Your task to perform on an android device: Search for duracell triple a on amazon, select the first entry, add it to the cart, then select checkout. Image 0: 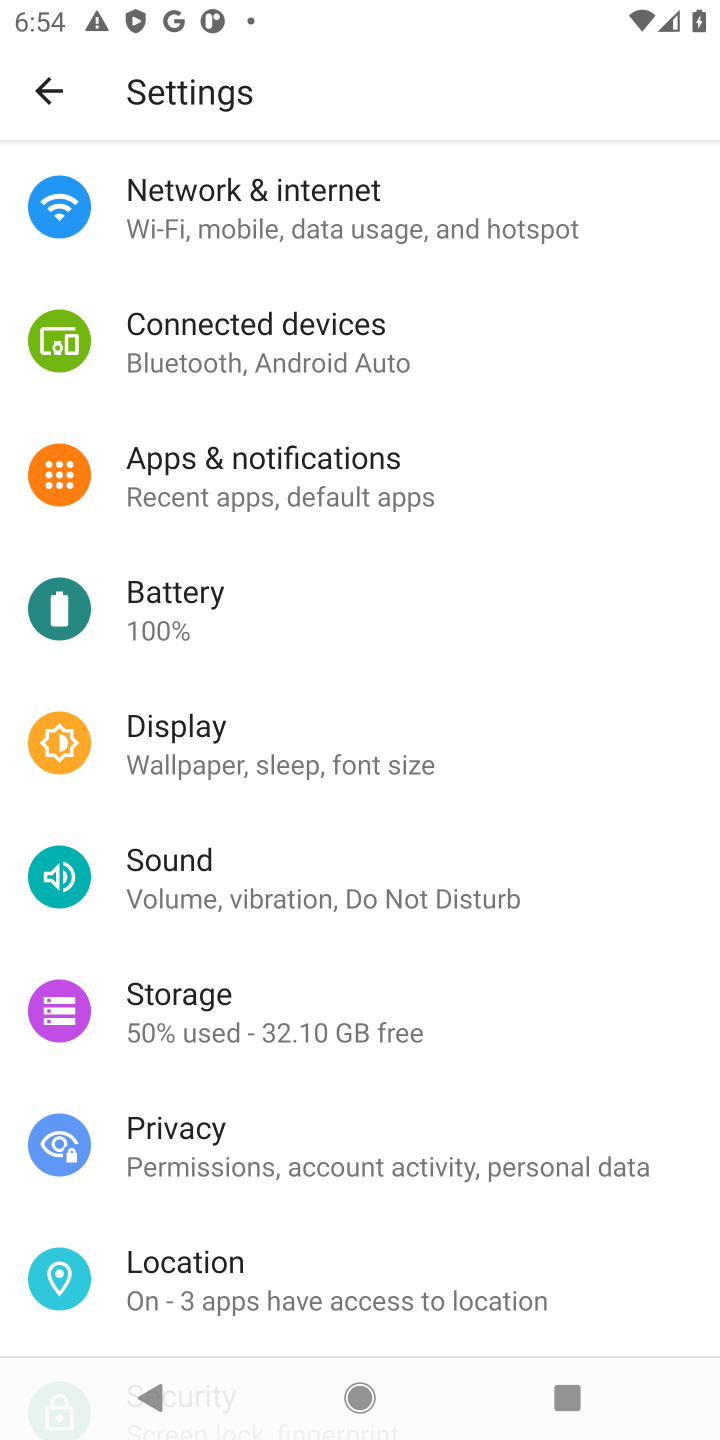
Step 0: press home button
Your task to perform on an android device: Search for duracell triple a on amazon, select the first entry, add it to the cart, then select checkout. Image 1: 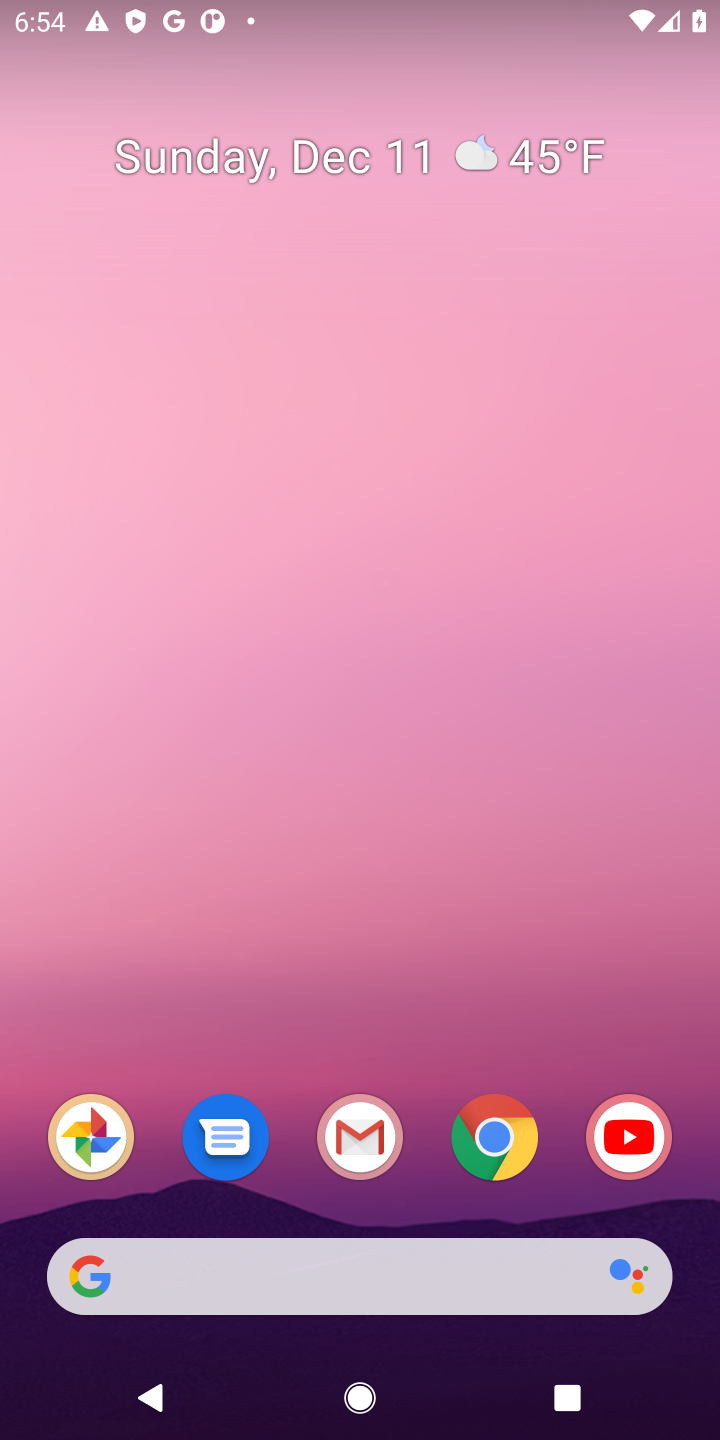
Step 1: click (493, 1143)
Your task to perform on an android device: Search for duracell triple a on amazon, select the first entry, add it to the cart, then select checkout. Image 2: 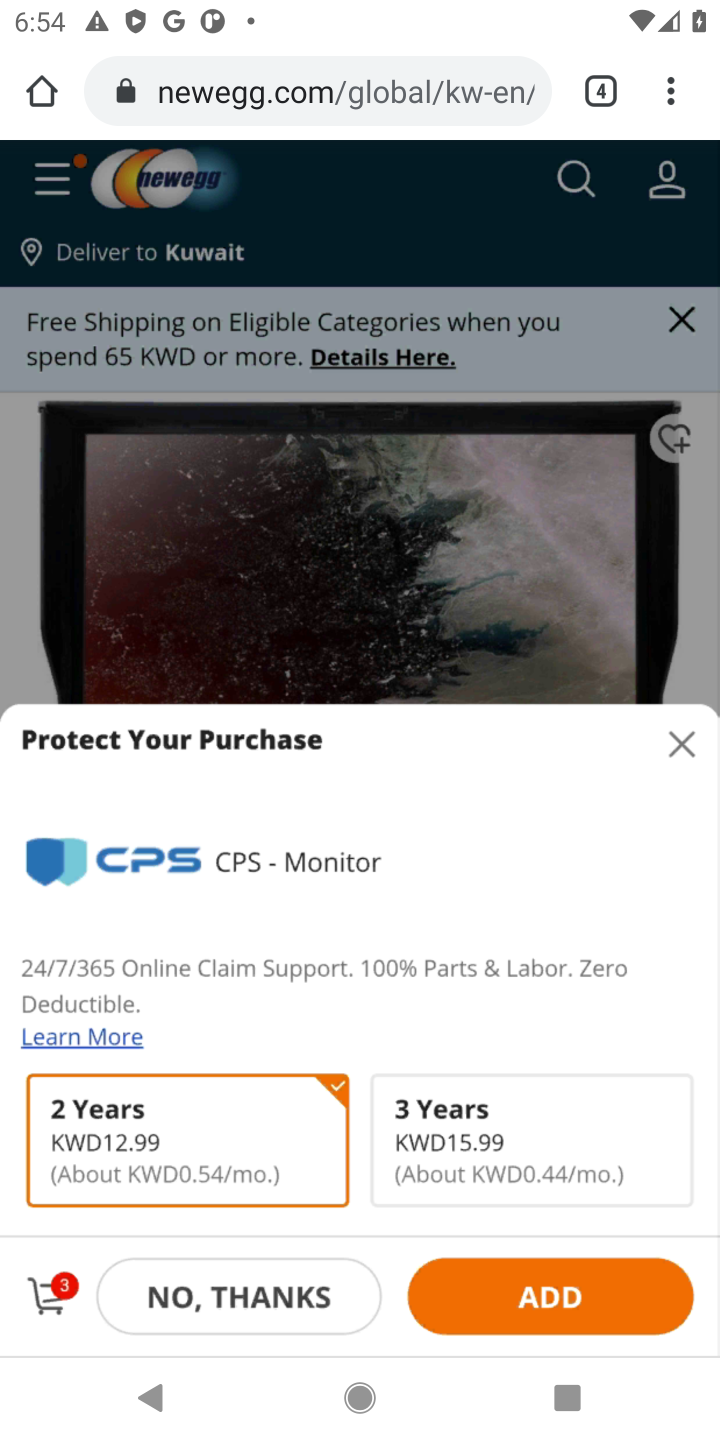
Step 2: click (359, 110)
Your task to perform on an android device: Search for duracell triple a on amazon, select the first entry, add it to the cart, then select checkout. Image 3: 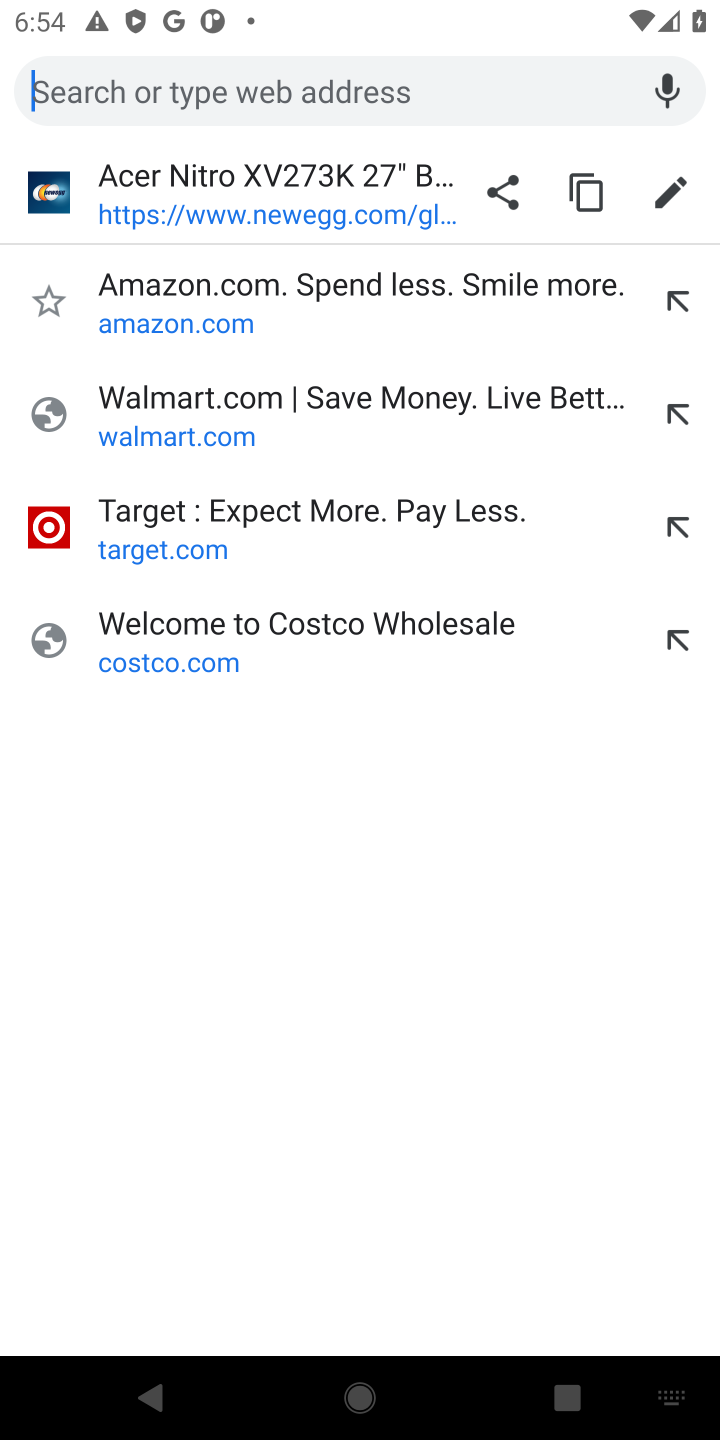
Step 3: click (121, 323)
Your task to perform on an android device: Search for duracell triple a on amazon, select the first entry, add it to the cart, then select checkout. Image 4: 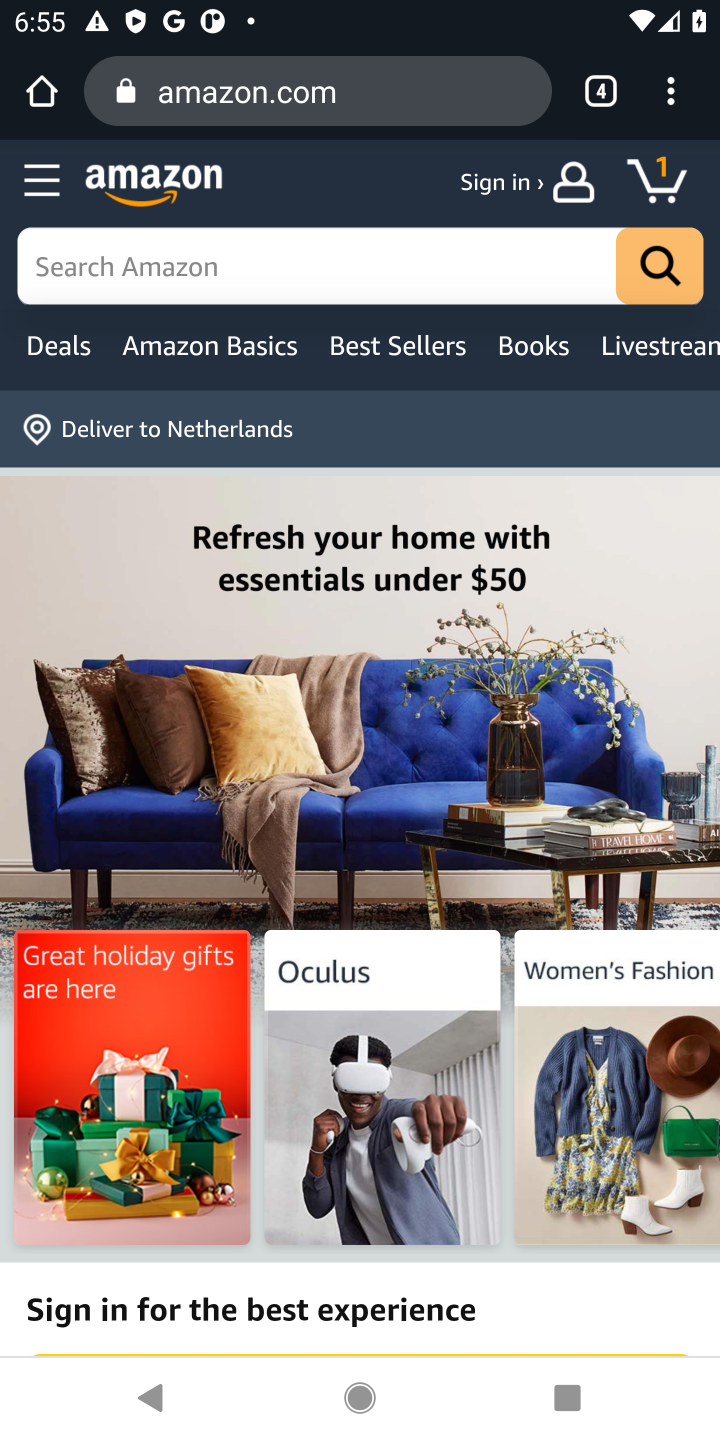
Step 4: click (519, 268)
Your task to perform on an android device: Search for duracell triple a on amazon, select the first entry, add it to the cart, then select checkout. Image 5: 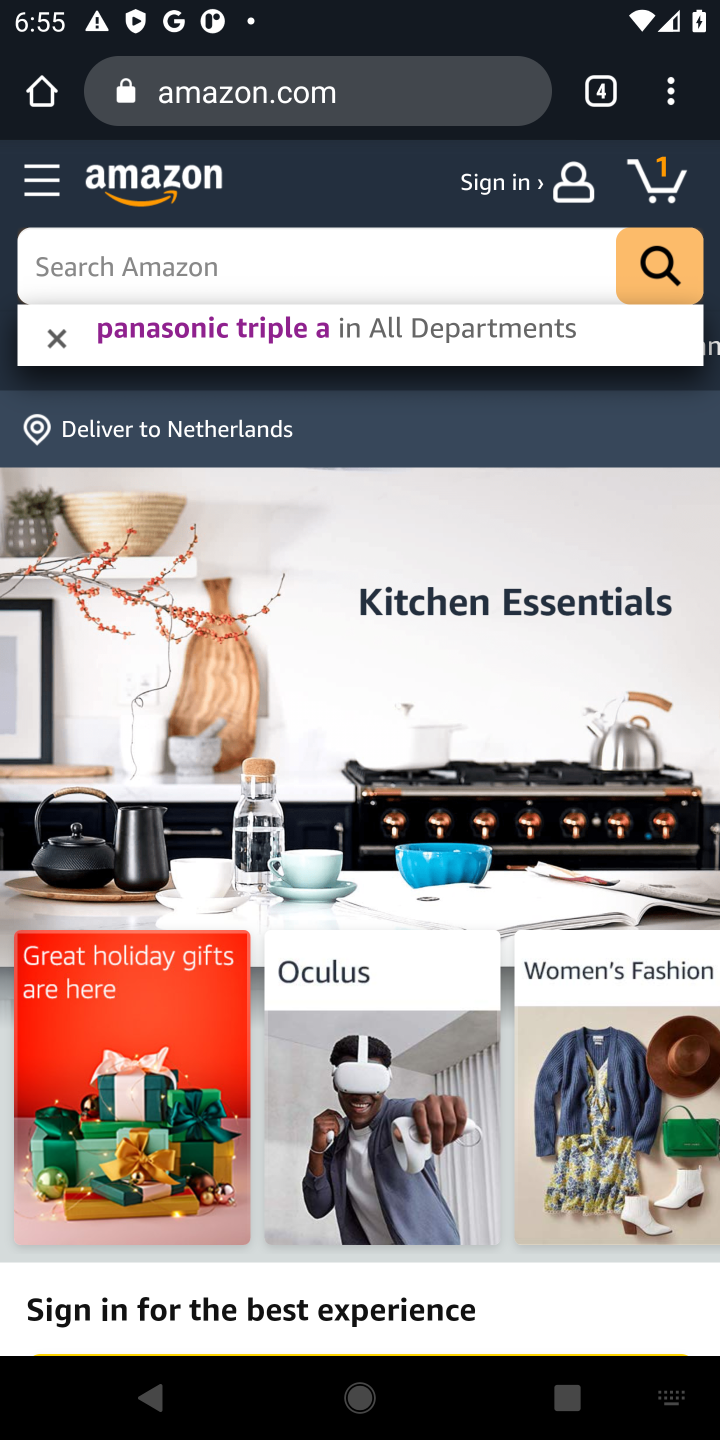
Step 5: type "duracell triple a"
Your task to perform on an android device: Search for duracell triple a on amazon, select the first entry, add it to the cart, then select checkout. Image 6: 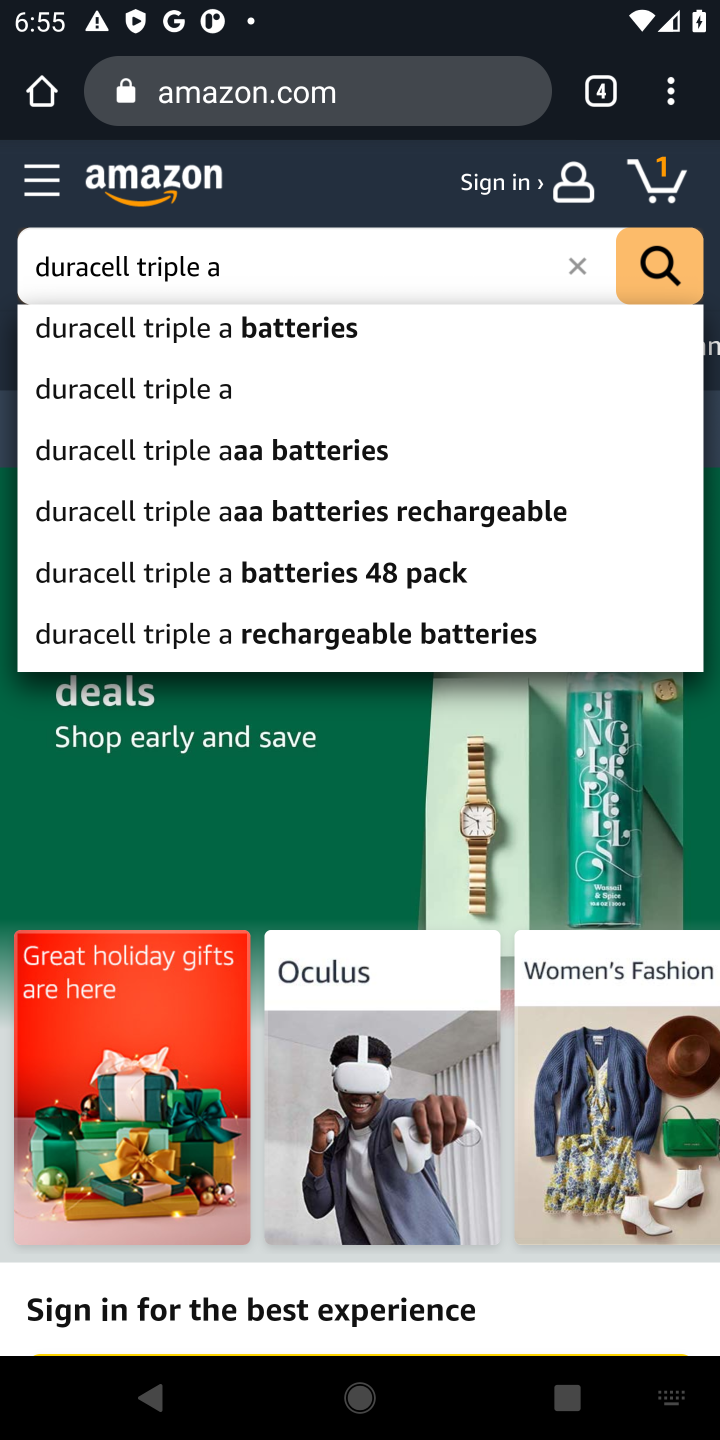
Step 6: click (241, 385)
Your task to perform on an android device: Search for duracell triple a on amazon, select the first entry, add it to the cart, then select checkout. Image 7: 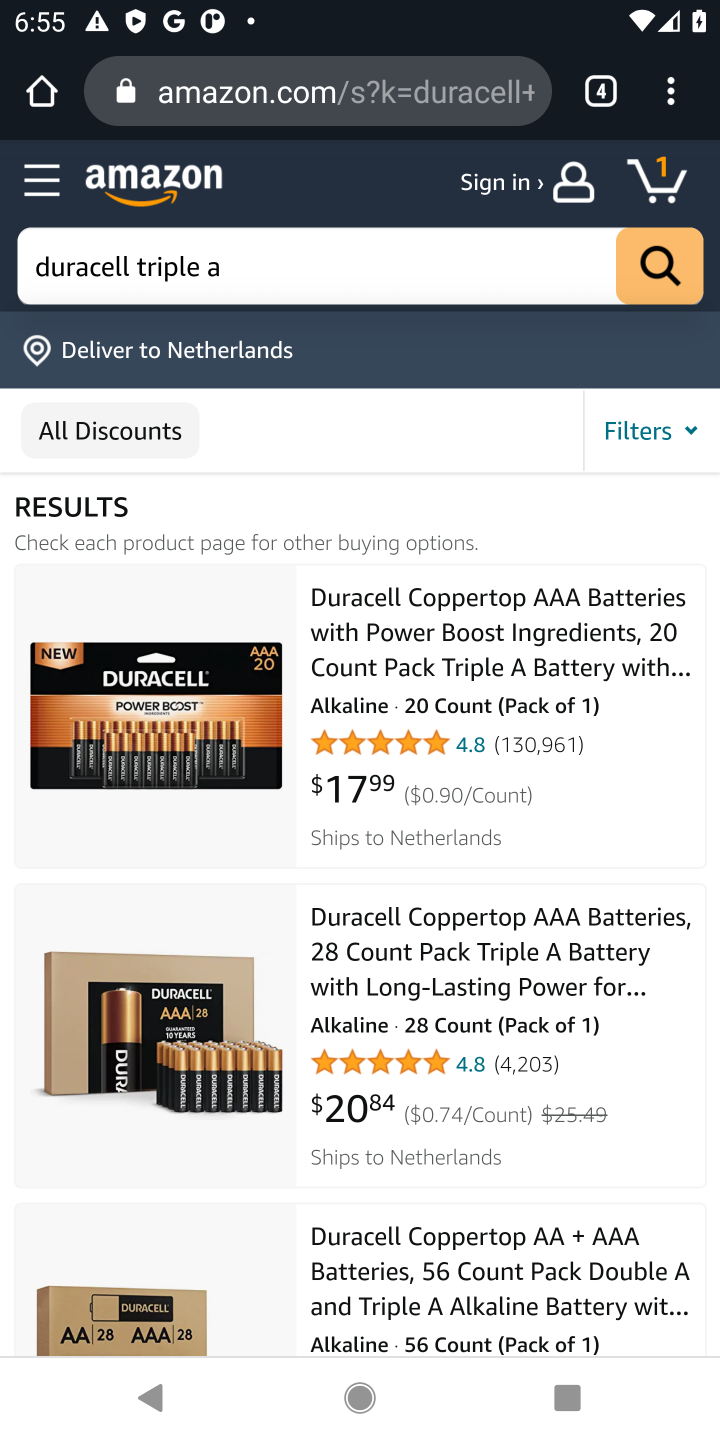
Step 7: click (451, 691)
Your task to perform on an android device: Search for duracell triple a on amazon, select the first entry, add it to the cart, then select checkout. Image 8: 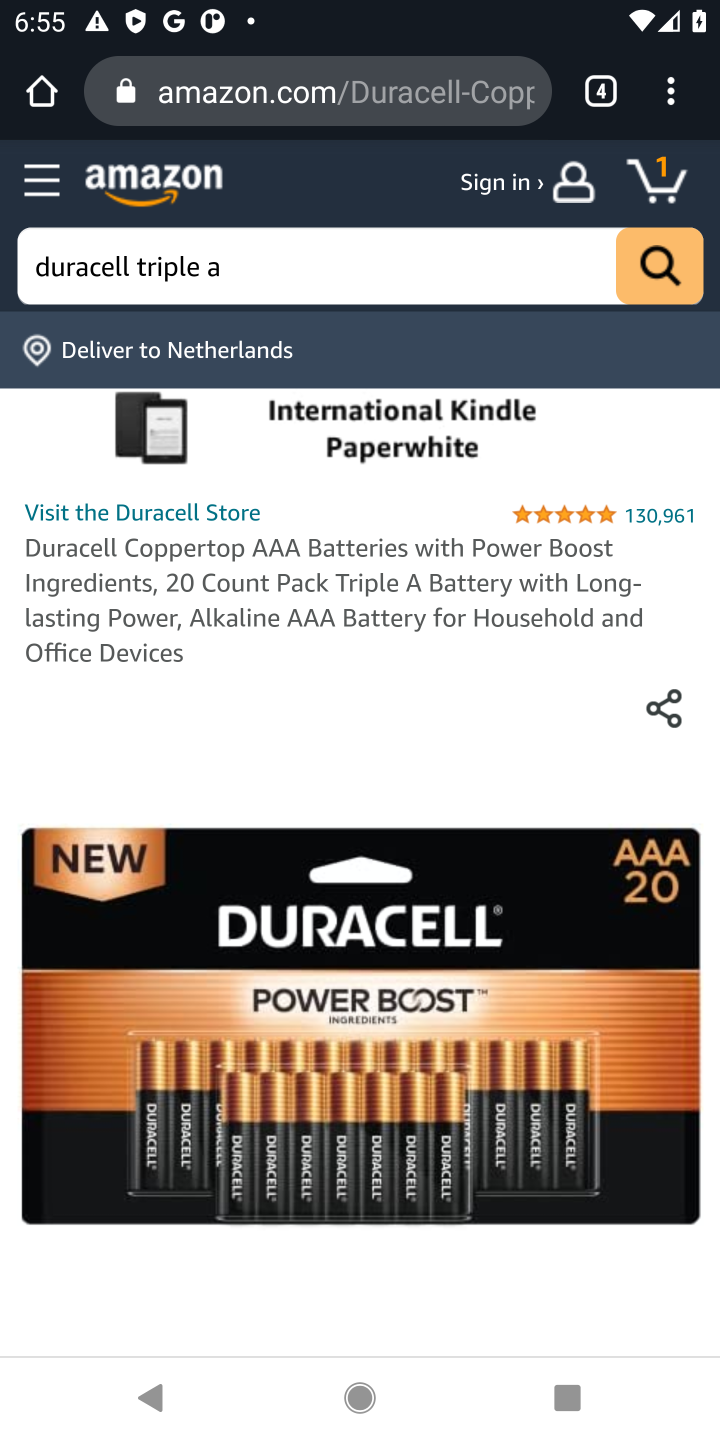
Step 8: drag from (225, 1260) to (407, 441)
Your task to perform on an android device: Search for duracell triple a on amazon, select the first entry, add it to the cart, then select checkout. Image 9: 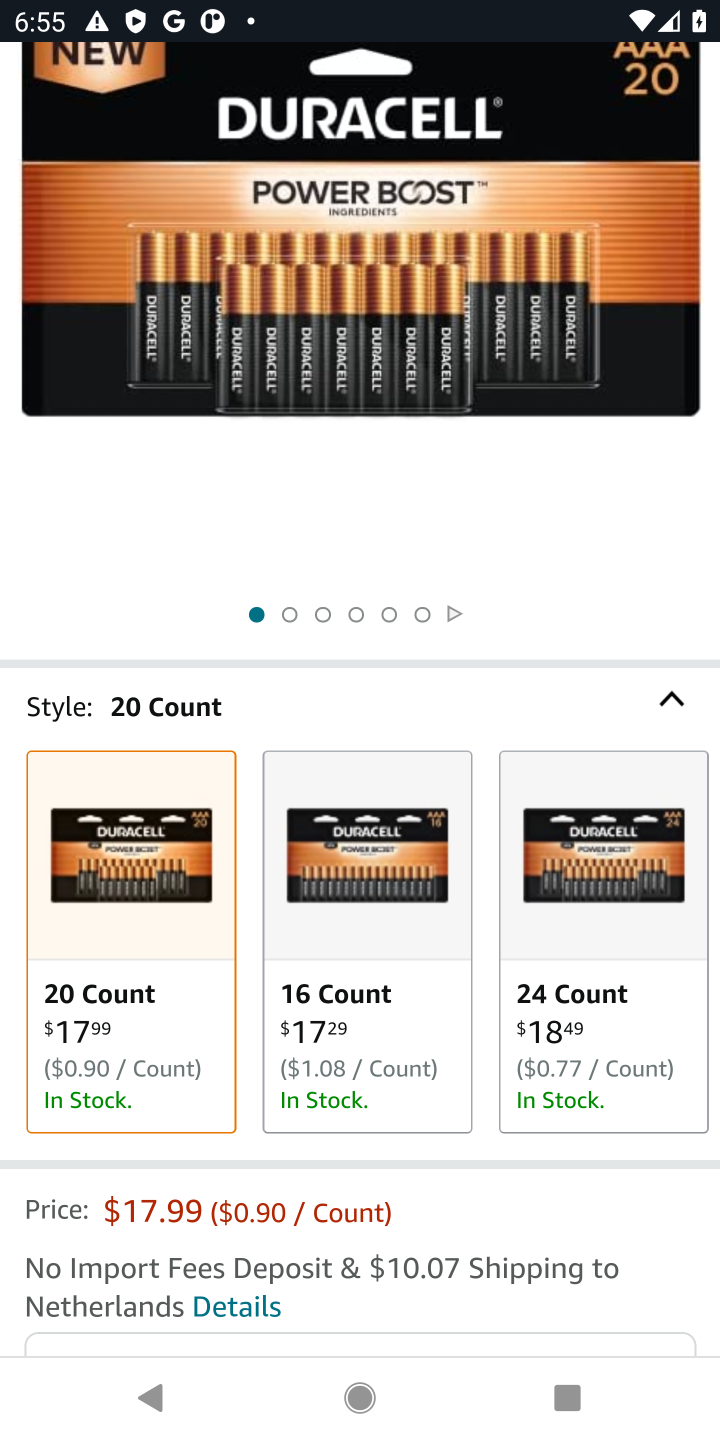
Step 9: drag from (332, 1281) to (430, 147)
Your task to perform on an android device: Search for duracell triple a on amazon, select the first entry, add it to the cart, then select checkout. Image 10: 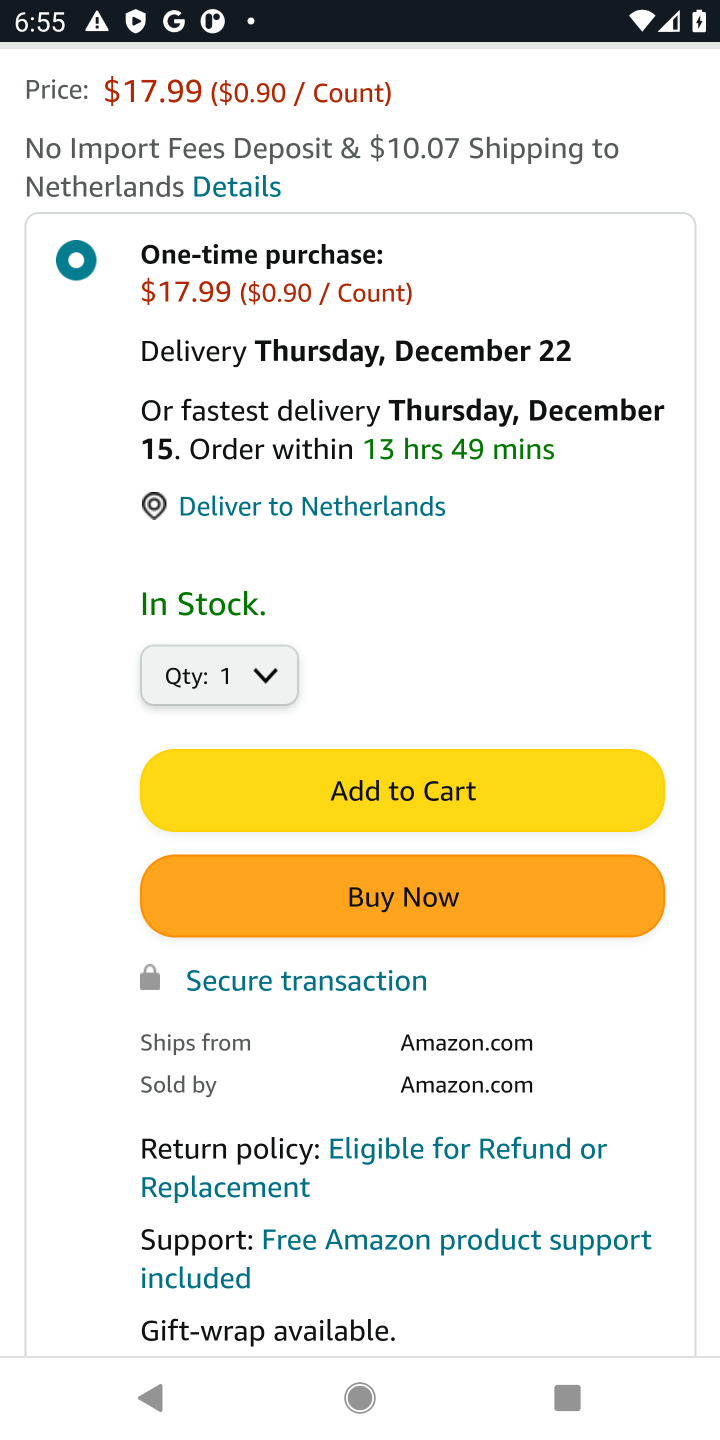
Step 10: click (261, 802)
Your task to perform on an android device: Search for duracell triple a on amazon, select the first entry, add it to the cart, then select checkout. Image 11: 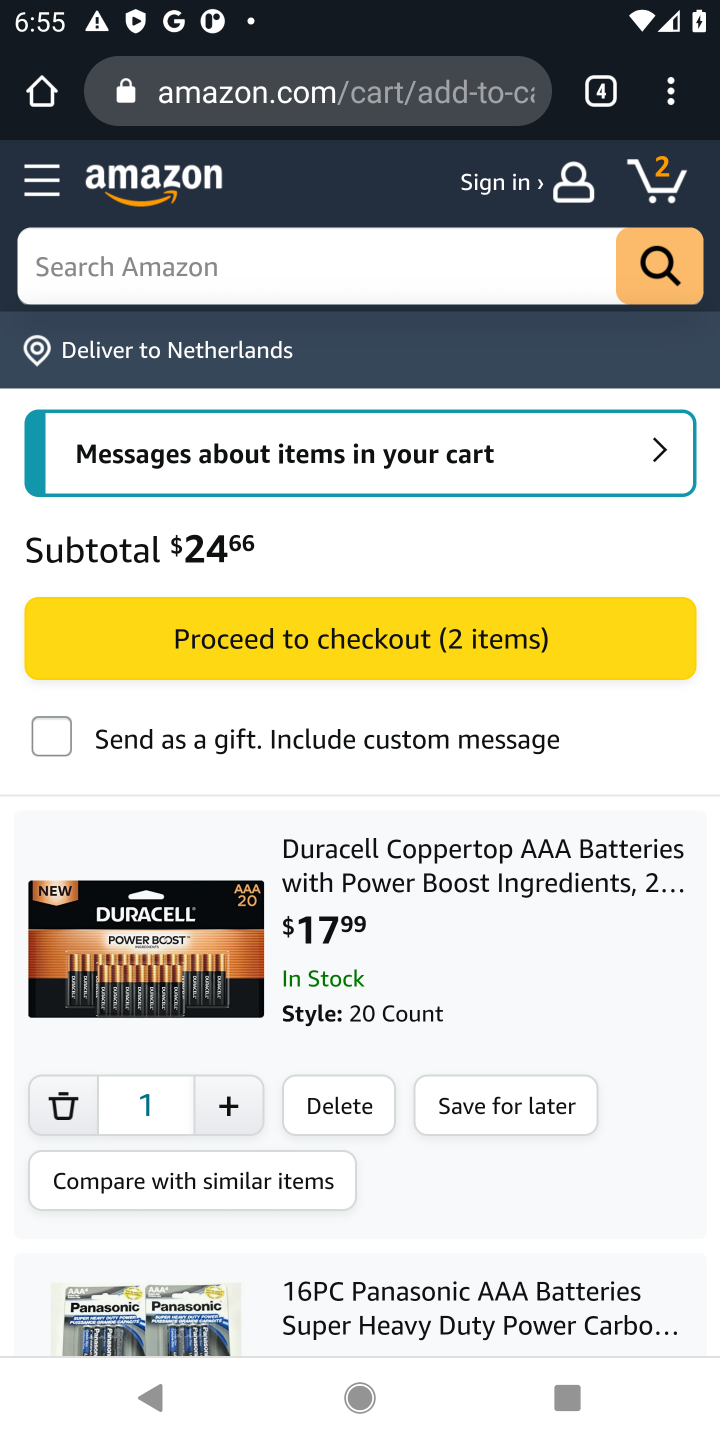
Step 11: click (331, 627)
Your task to perform on an android device: Search for duracell triple a on amazon, select the first entry, add it to the cart, then select checkout. Image 12: 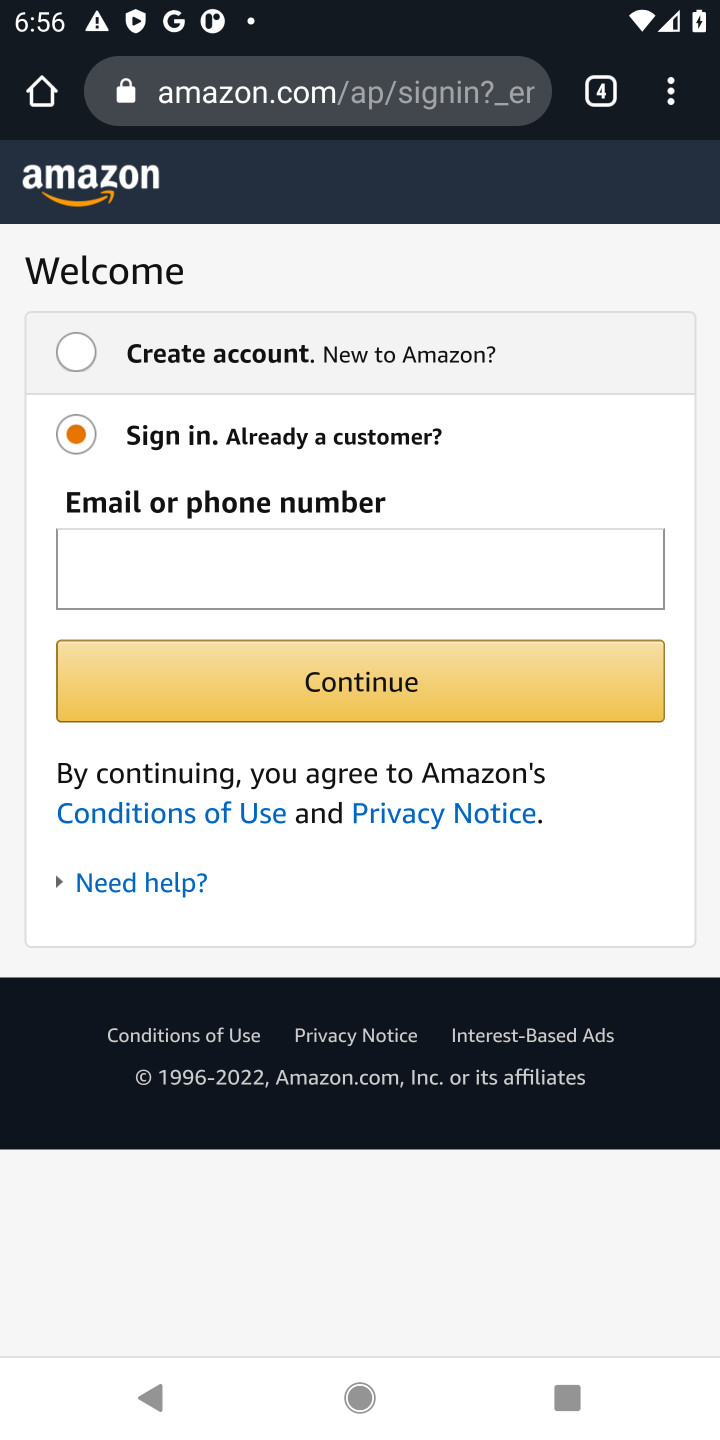
Step 12: task complete